Your task to perform on an android device: delete the emails in spam in the gmail app Image 0: 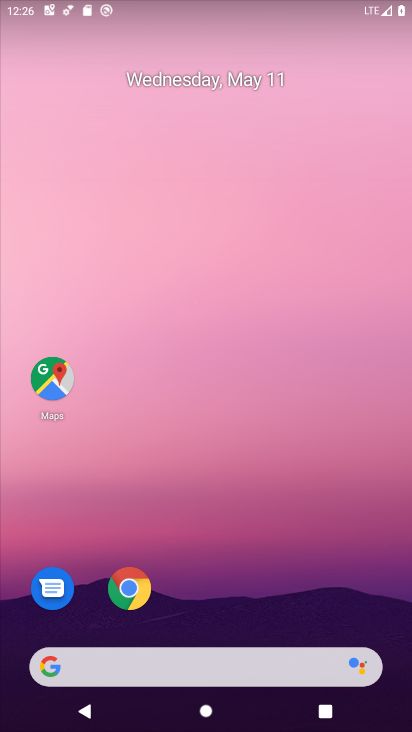
Step 0: drag from (245, 648) to (317, 200)
Your task to perform on an android device: delete the emails in spam in the gmail app Image 1: 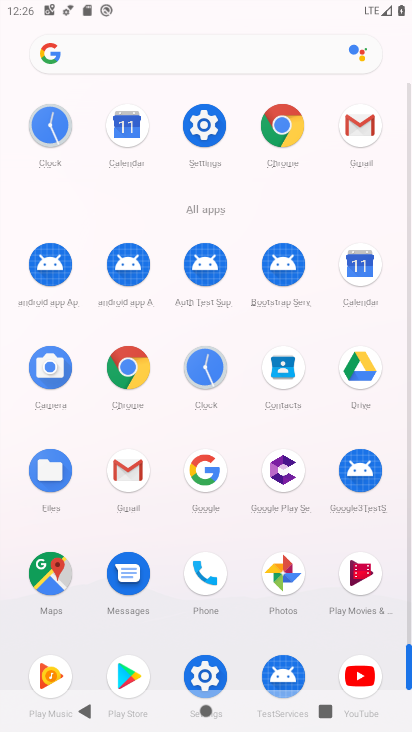
Step 1: click (357, 120)
Your task to perform on an android device: delete the emails in spam in the gmail app Image 2: 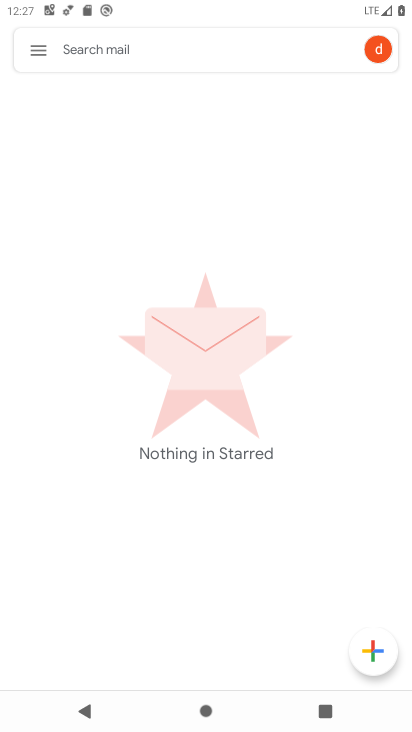
Step 2: task complete